Your task to perform on an android device: turn on airplane mode Image 0: 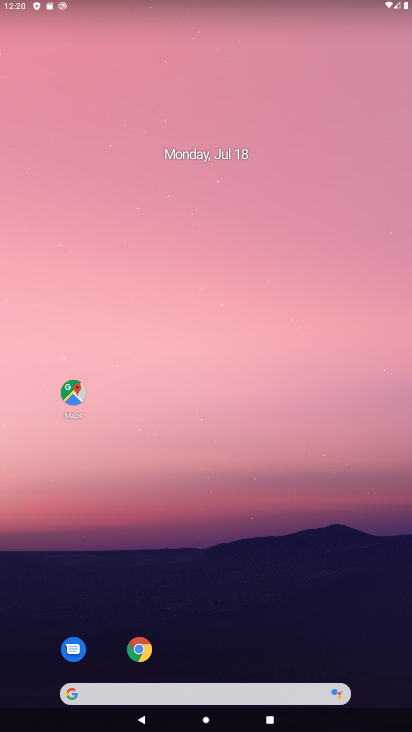
Step 0: drag from (243, 220) to (311, 19)
Your task to perform on an android device: turn on airplane mode Image 1: 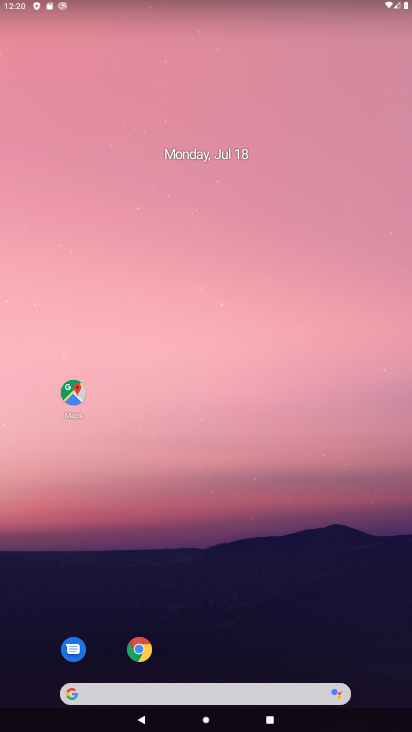
Step 1: drag from (130, 350) to (251, 17)
Your task to perform on an android device: turn on airplane mode Image 2: 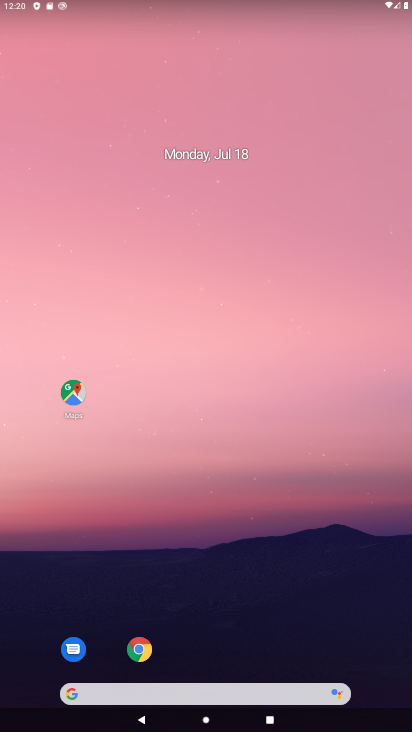
Step 2: drag from (49, 689) to (308, 28)
Your task to perform on an android device: turn on airplane mode Image 3: 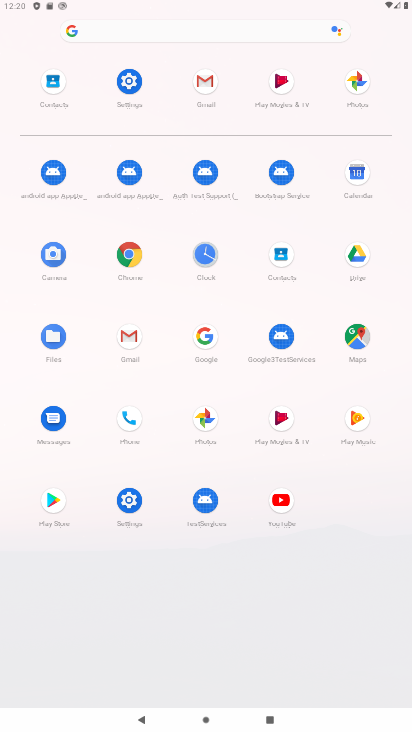
Step 3: click (137, 508)
Your task to perform on an android device: turn on airplane mode Image 4: 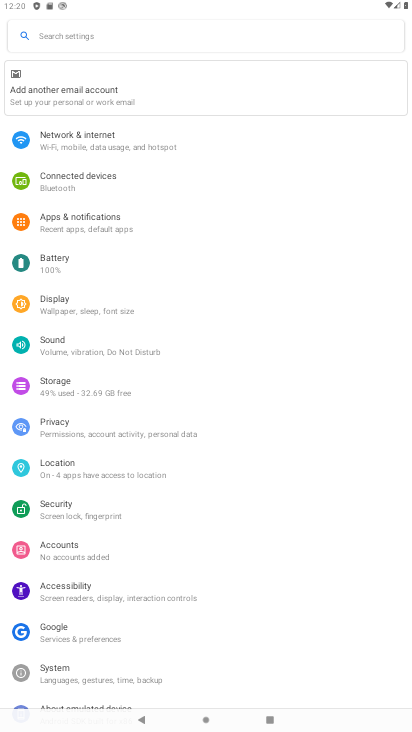
Step 4: click (140, 130)
Your task to perform on an android device: turn on airplane mode Image 5: 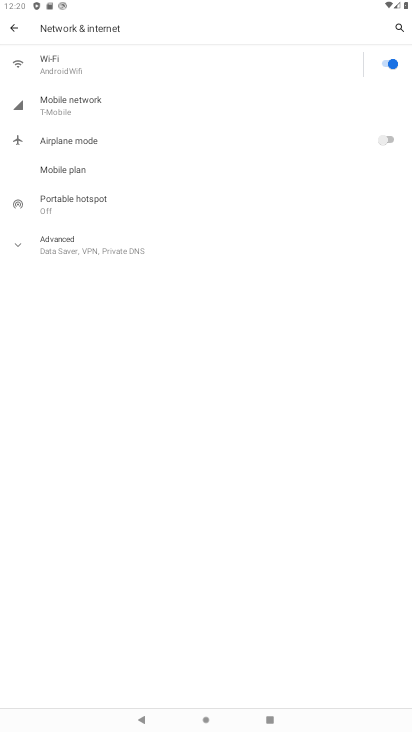
Step 5: click (381, 136)
Your task to perform on an android device: turn on airplane mode Image 6: 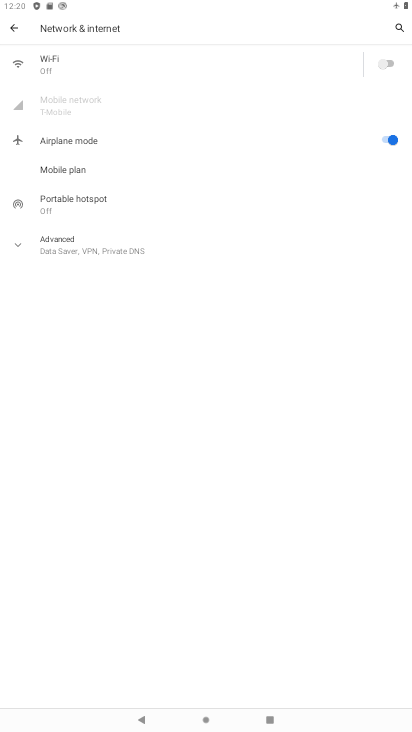
Step 6: task complete